Your task to perform on an android device: Open the calendar and show me this week's events Image 0: 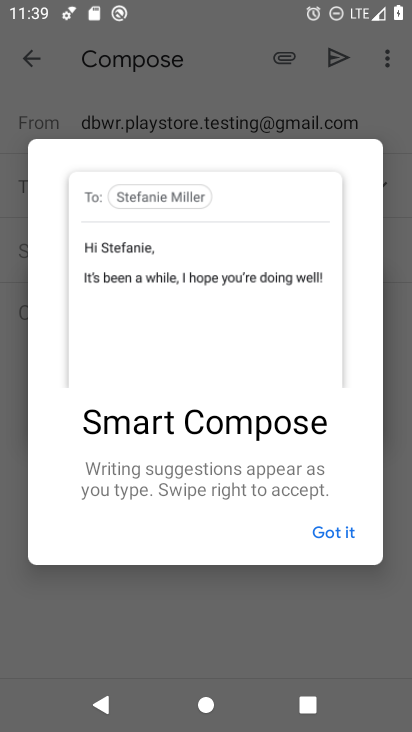
Step 0: press home button
Your task to perform on an android device: Open the calendar and show me this week's events Image 1: 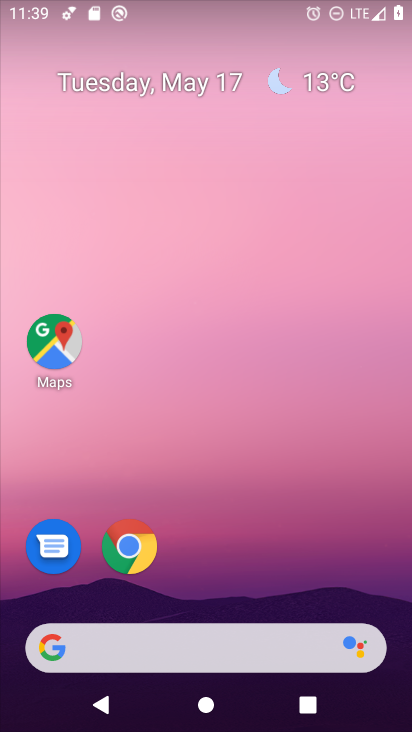
Step 1: drag from (209, 592) to (355, 5)
Your task to perform on an android device: Open the calendar and show me this week's events Image 2: 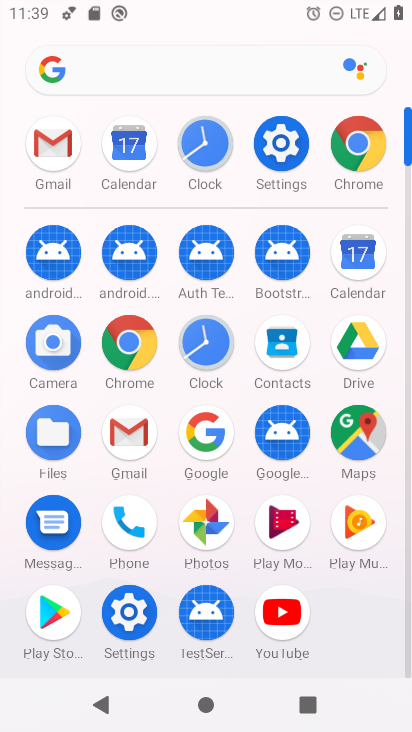
Step 2: click (128, 157)
Your task to perform on an android device: Open the calendar and show me this week's events Image 3: 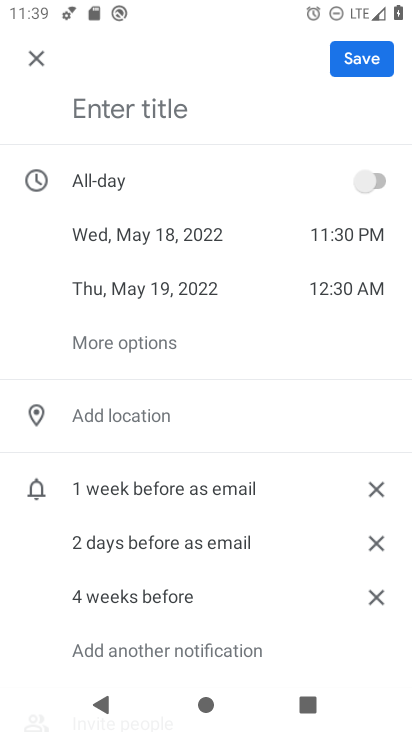
Step 3: click (52, 70)
Your task to perform on an android device: Open the calendar and show me this week's events Image 4: 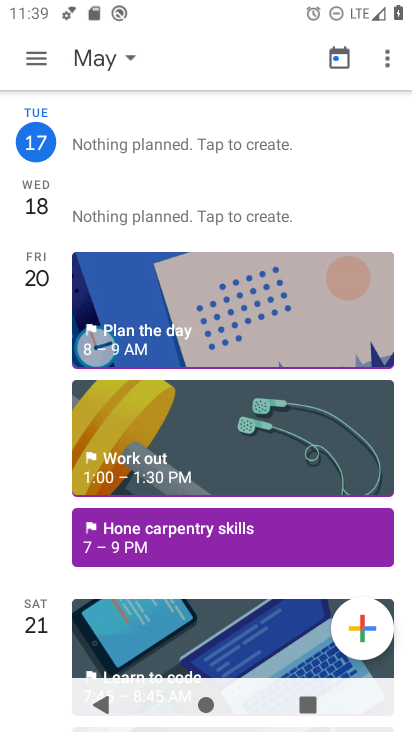
Step 4: click (26, 67)
Your task to perform on an android device: Open the calendar and show me this week's events Image 5: 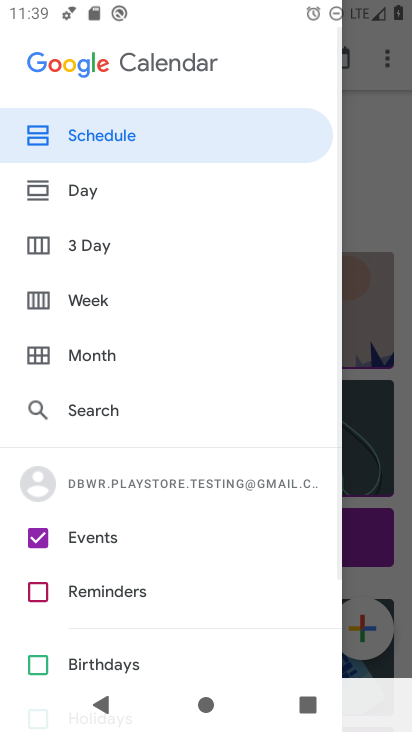
Step 5: click (85, 313)
Your task to perform on an android device: Open the calendar and show me this week's events Image 6: 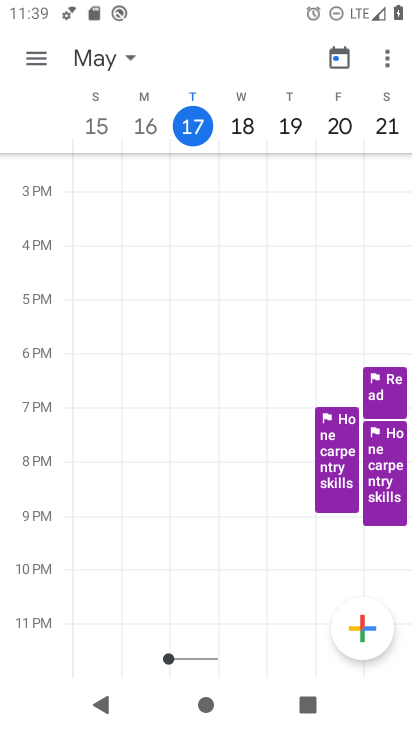
Step 6: task complete